Your task to perform on an android device: What is the news today? Image 0: 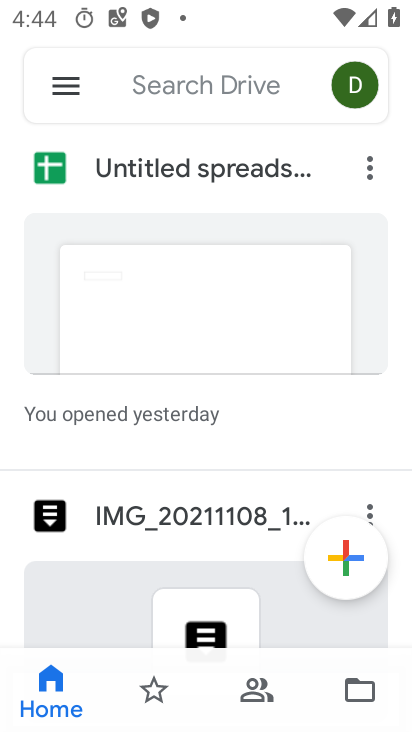
Step 0: press home button
Your task to perform on an android device: What is the news today? Image 1: 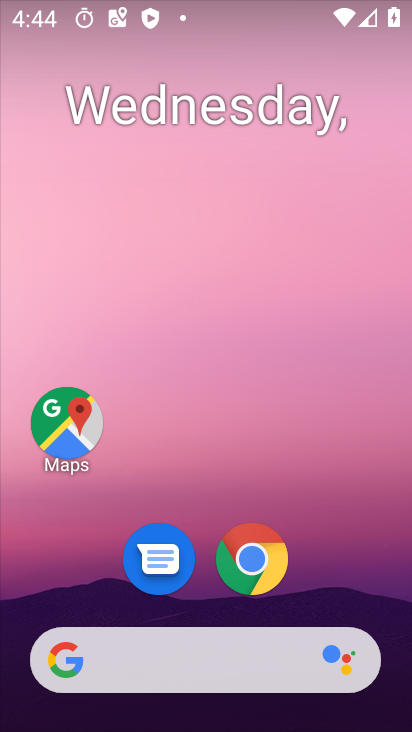
Step 1: drag from (353, 562) to (204, 66)
Your task to perform on an android device: What is the news today? Image 2: 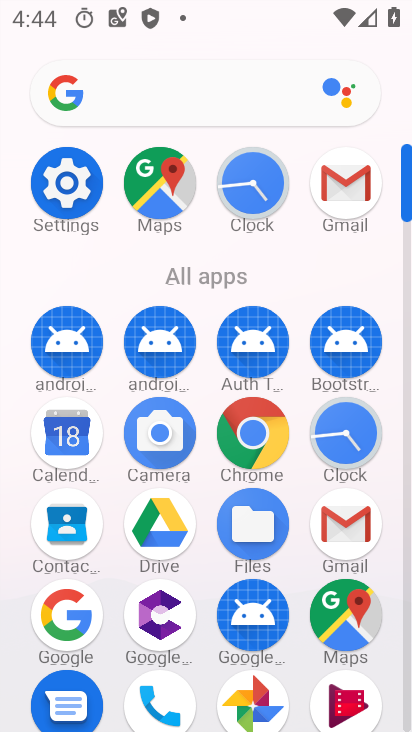
Step 2: click (73, 615)
Your task to perform on an android device: What is the news today? Image 3: 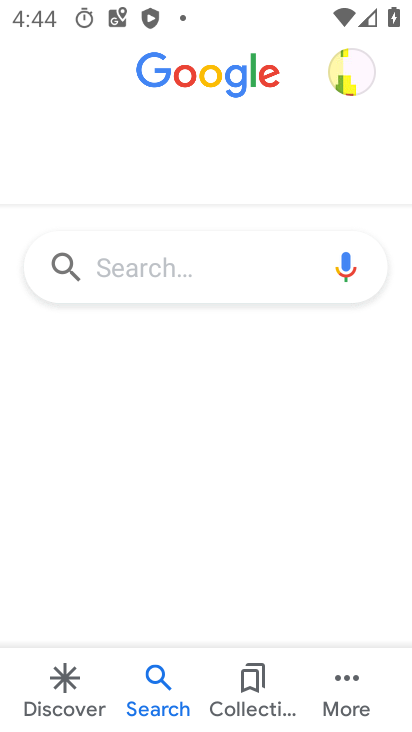
Step 3: click (201, 276)
Your task to perform on an android device: What is the news today? Image 4: 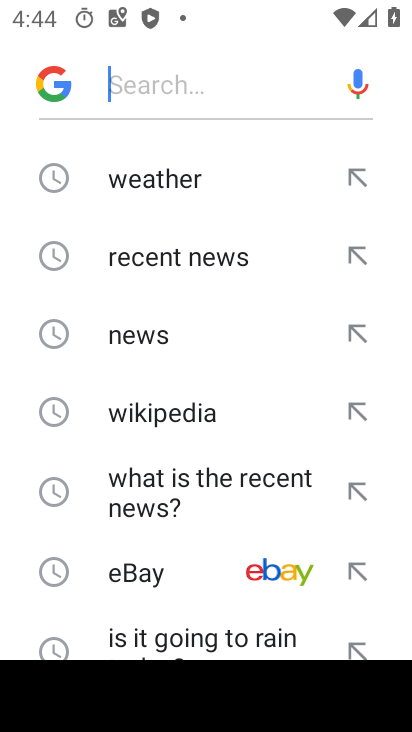
Step 4: click (175, 345)
Your task to perform on an android device: What is the news today? Image 5: 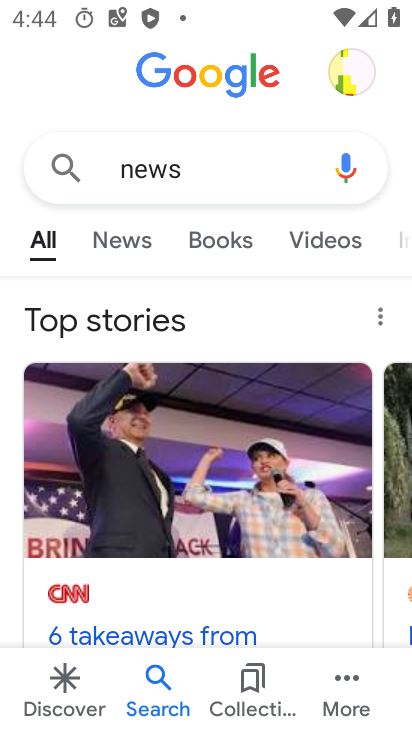
Step 5: task complete